Your task to perform on an android device: Go to Google Image 0: 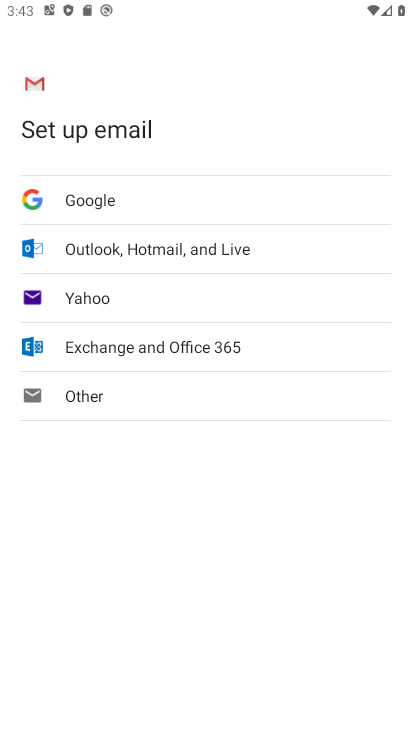
Step 0: press home button
Your task to perform on an android device: Go to Google Image 1: 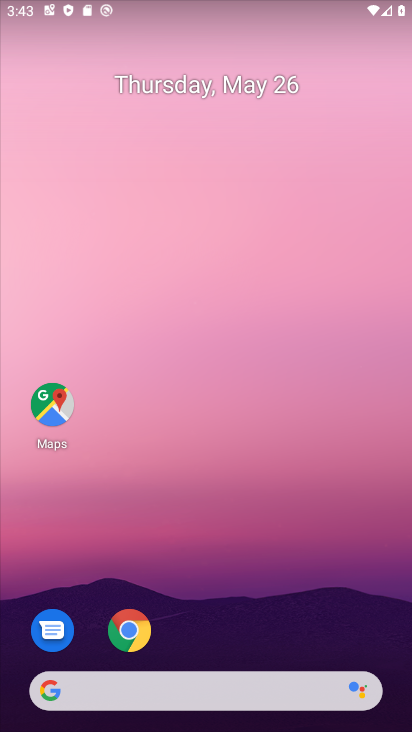
Step 1: drag from (196, 640) to (194, 87)
Your task to perform on an android device: Go to Google Image 2: 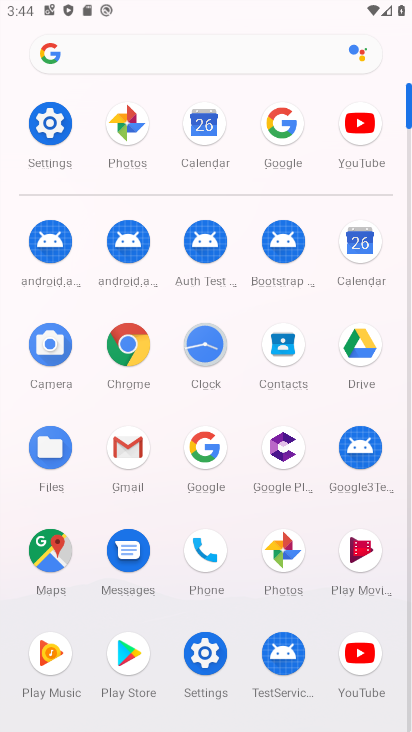
Step 2: click (280, 123)
Your task to perform on an android device: Go to Google Image 3: 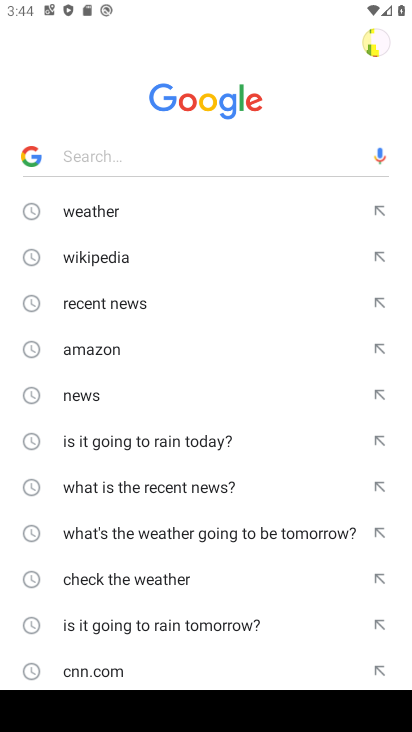
Step 3: task complete